Your task to perform on an android device: turn off smart reply in the gmail app Image 0: 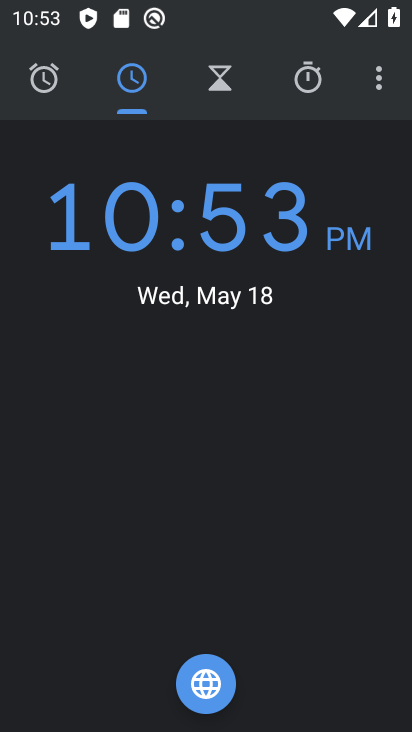
Step 0: press home button
Your task to perform on an android device: turn off smart reply in the gmail app Image 1: 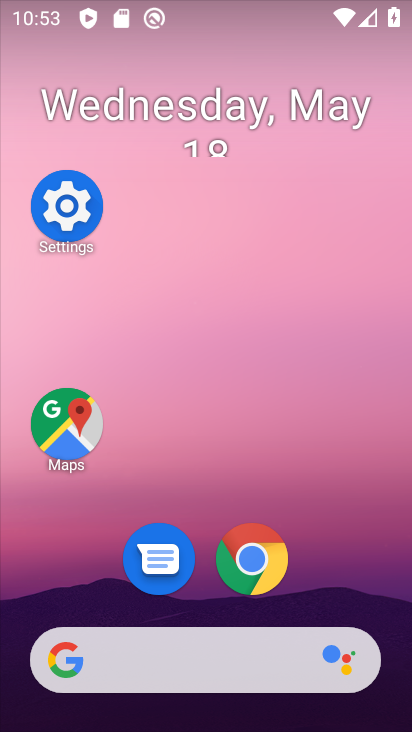
Step 1: drag from (350, 592) to (315, 105)
Your task to perform on an android device: turn off smart reply in the gmail app Image 2: 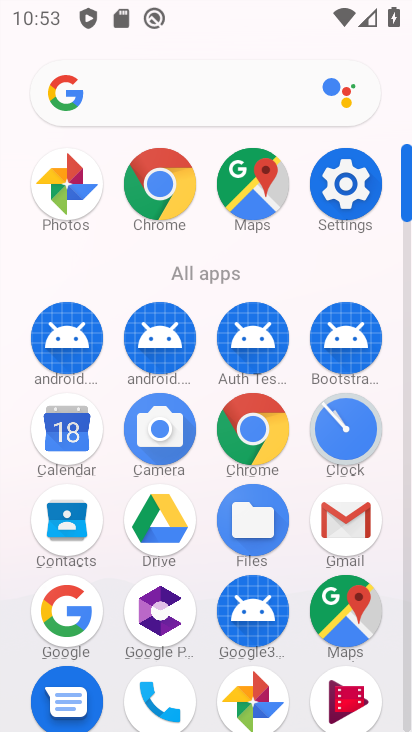
Step 2: click (364, 527)
Your task to perform on an android device: turn off smart reply in the gmail app Image 3: 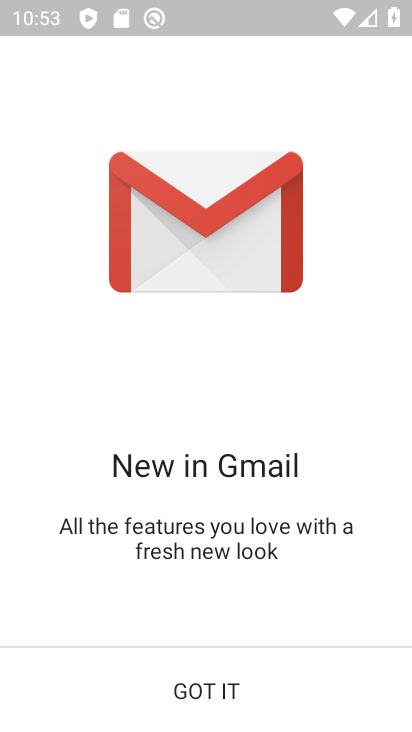
Step 3: click (243, 690)
Your task to perform on an android device: turn off smart reply in the gmail app Image 4: 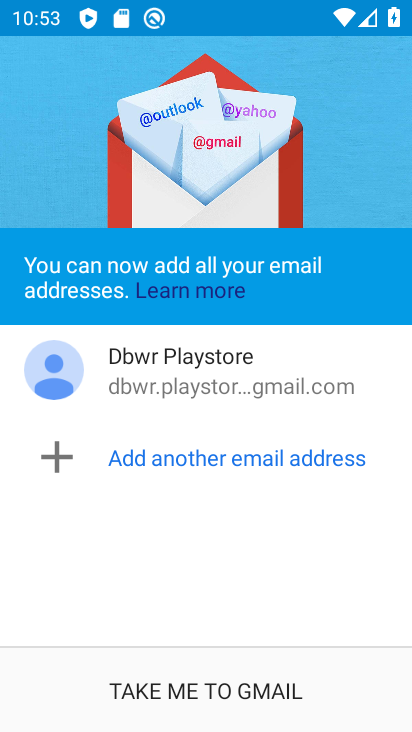
Step 4: click (243, 690)
Your task to perform on an android device: turn off smart reply in the gmail app Image 5: 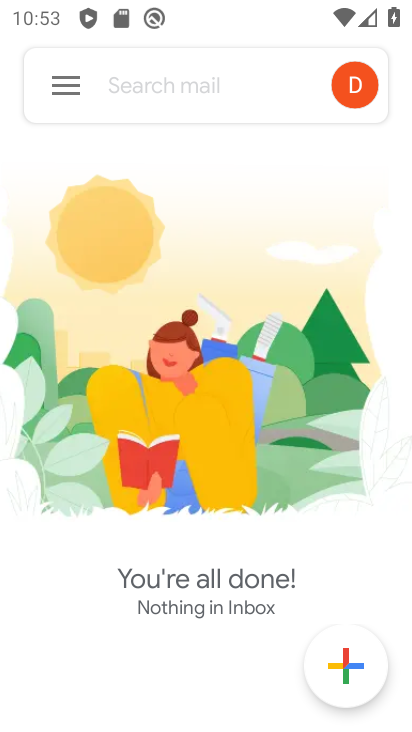
Step 5: click (65, 100)
Your task to perform on an android device: turn off smart reply in the gmail app Image 6: 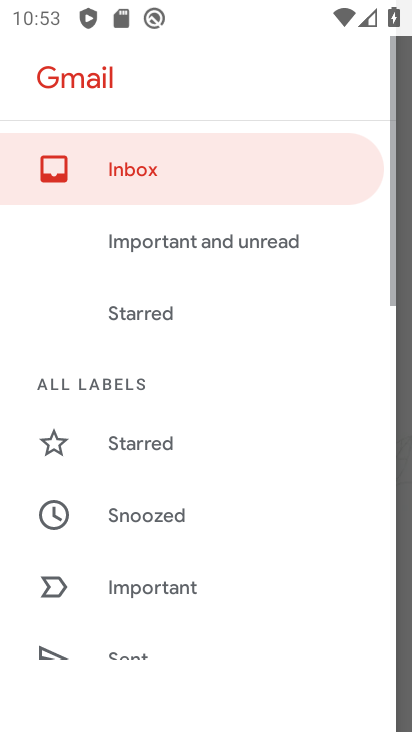
Step 6: drag from (235, 551) to (261, 108)
Your task to perform on an android device: turn off smart reply in the gmail app Image 7: 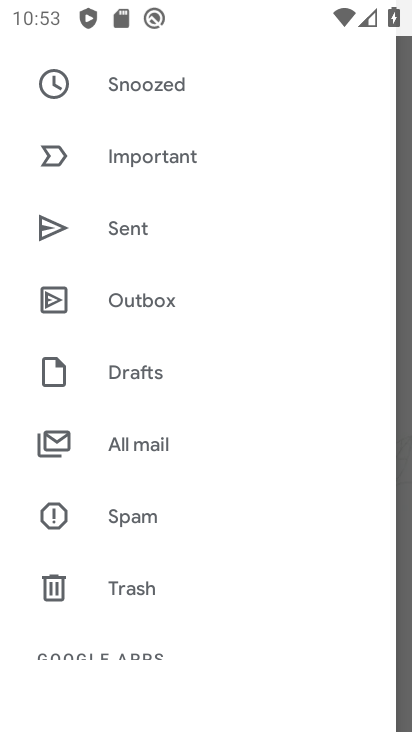
Step 7: drag from (233, 544) to (259, 146)
Your task to perform on an android device: turn off smart reply in the gmail app Image 8: 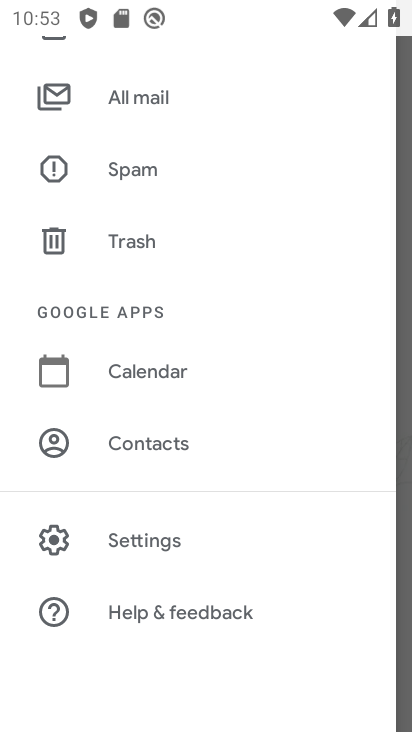
Step 8: click (187, 537)
Your task to perform on an android device: turn off smart reply in the gmail app Image 9: 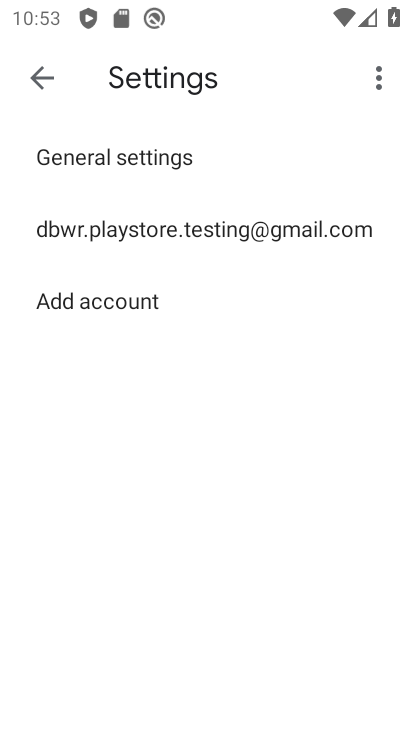
Step 9: click (184, 225)
Your task to perform on an android device: turn off smart reply in the gmail app Image 10: 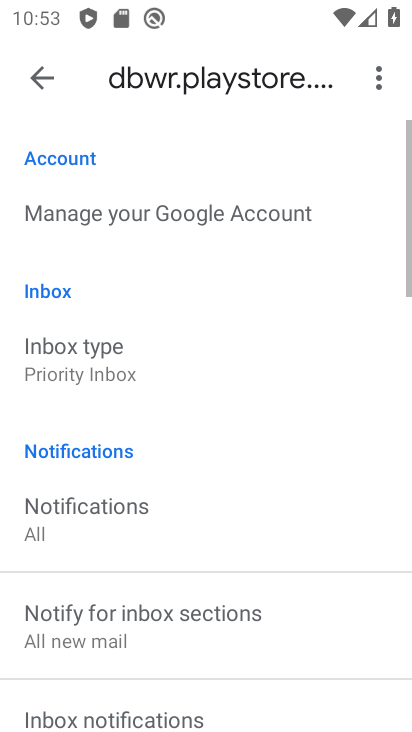
Step 10: drag from (237, 490) to (268, 122)
Your task to perform on an android device: turn off smart reply in the gmail app Image 11: 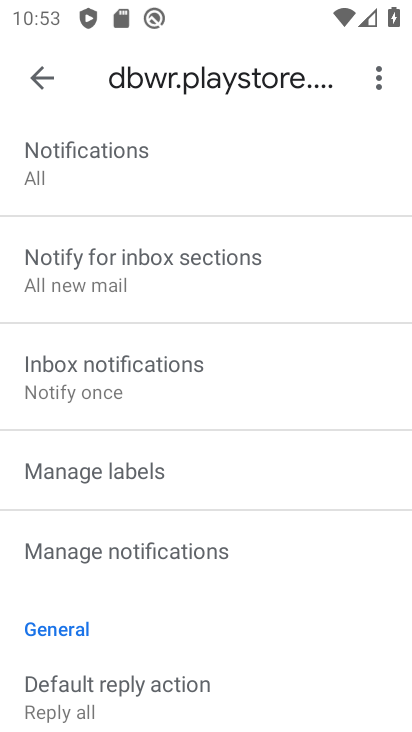
Step 11: drag from (264, 539) to (331, 153)
Your task to perform on an android device: turn off smart reply in the gmail app Image 12: 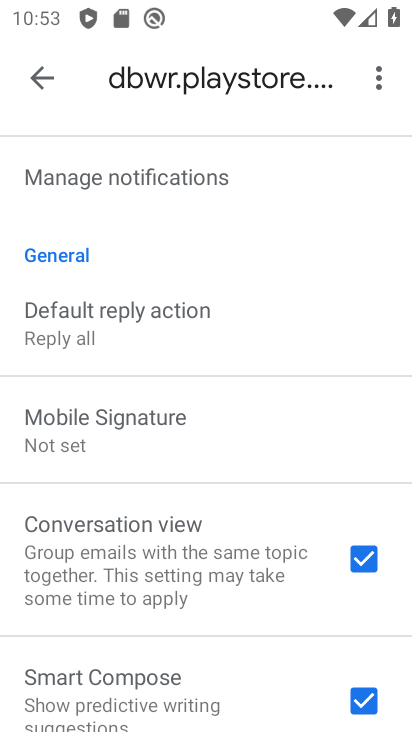
Step 12: drag from (281, 500) to (322, 124)
Your task to perform on an android device: turn off smart reply in the gmail app Image 13: 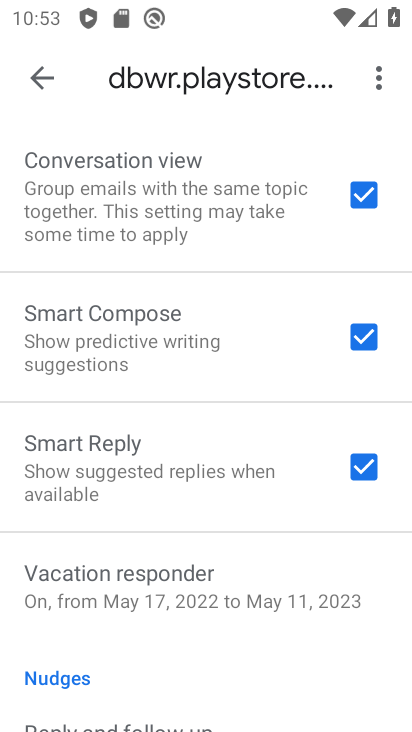
Step 13: click (360, 471)
Your task to perform on an android device: turn off smart reply in the gmail app Image 14: 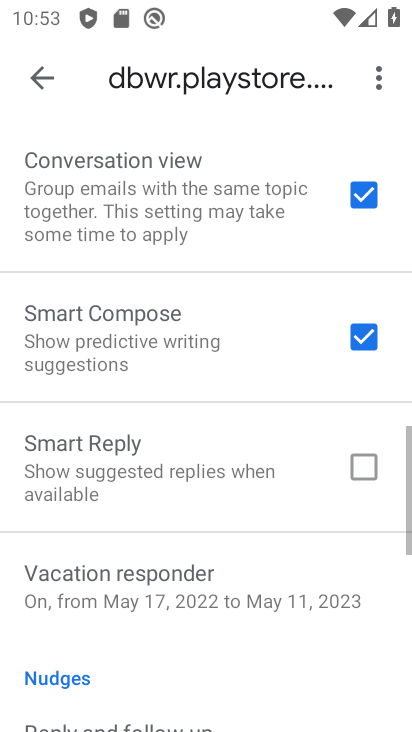
Step 14: task complete